Your task to perform on an android device: open wifi settings Image 0: 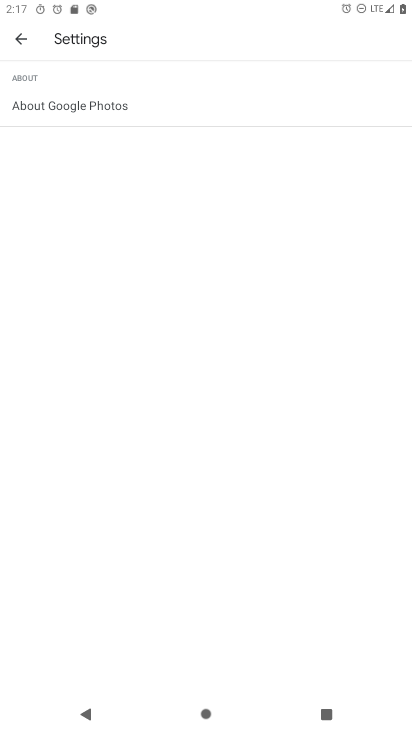
Step 0: press home button
Your task to perform on an android device: open wifi settings Image 1: 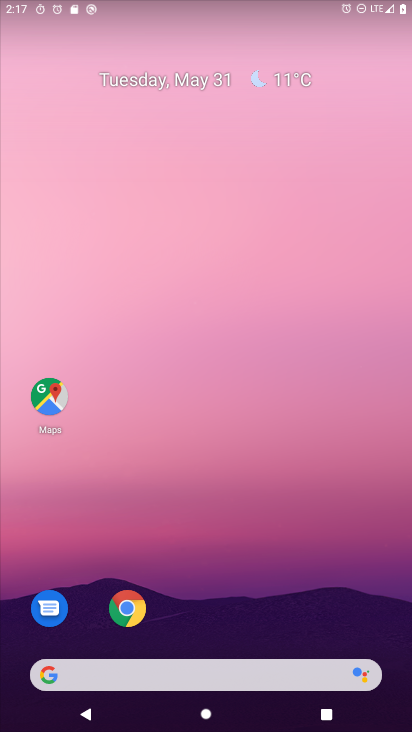
Step 1: drag from (233, 646) to (263, 2)
Your task to perform on an android device: open wifi settings Image 2: 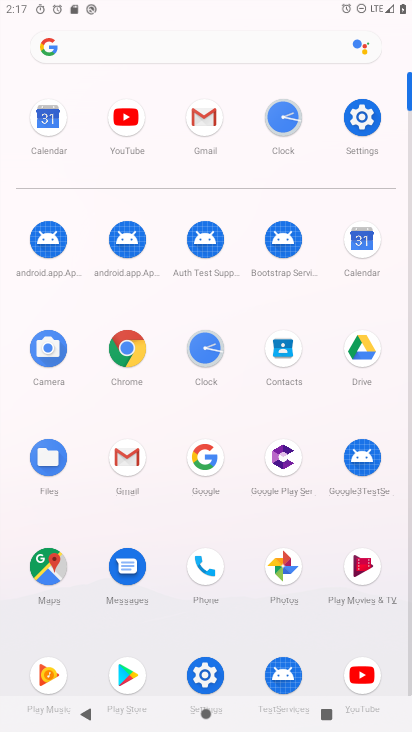
Step 2: click (356, 117)
Your task to perform on an android device: open wifi settings Image 3: 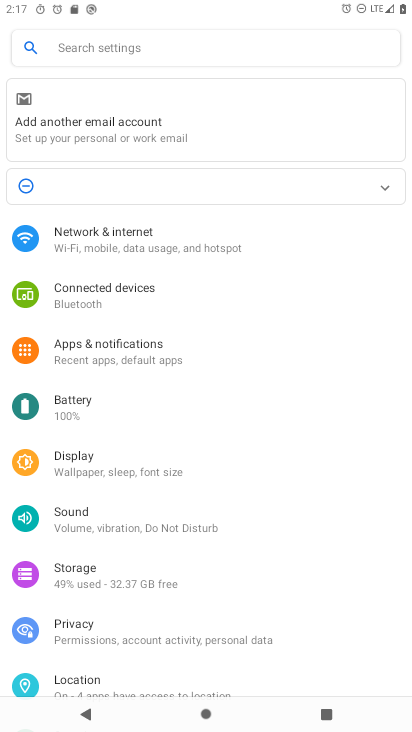
Step 3: click (86, 240)
Your task to perform on an android device: open wifi settings Image 4: 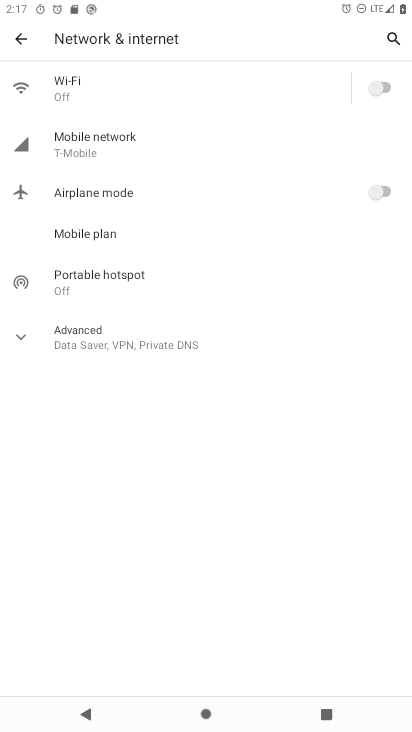
Step 4: click (42, 95)
Your task to perform on an android device: open wifi settings Image 5: 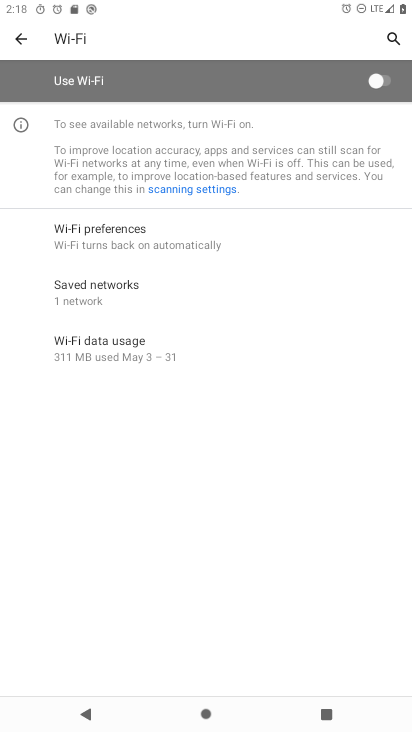
Step 5: task complete